Your task to perform on an android device: turn pop-ups off in chrome Image 0: 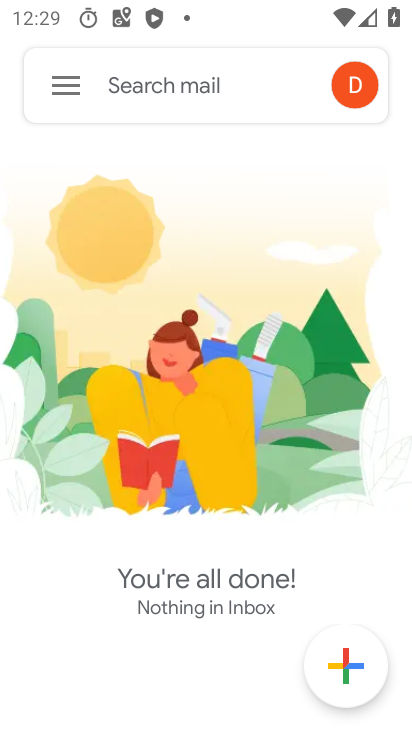
Step 0: press home button
Your task to perform on an android device: turn pop-ups off in chrome Image 1: 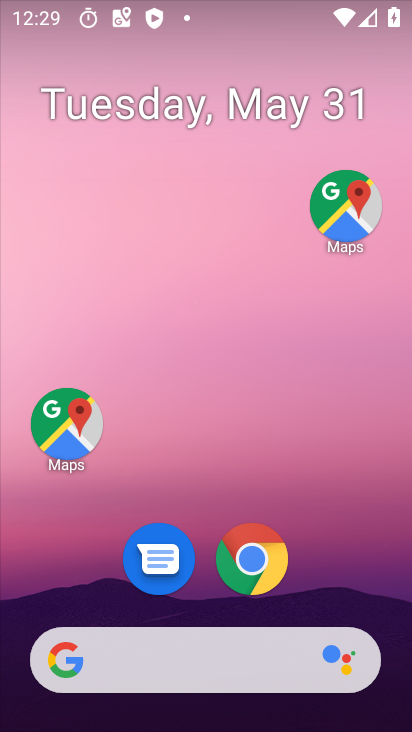
Step 1: click (264, 558)
Your task to perform on an android device: turn pop-ups off in chrome Image 2: 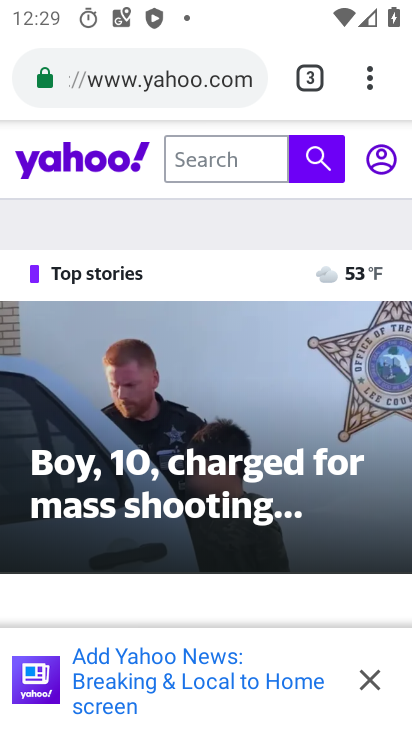
Step 2: drag from (369, 80) to (146, 614)
Your task to perform on an android device: turn pop-ups off in chrome Image 3: 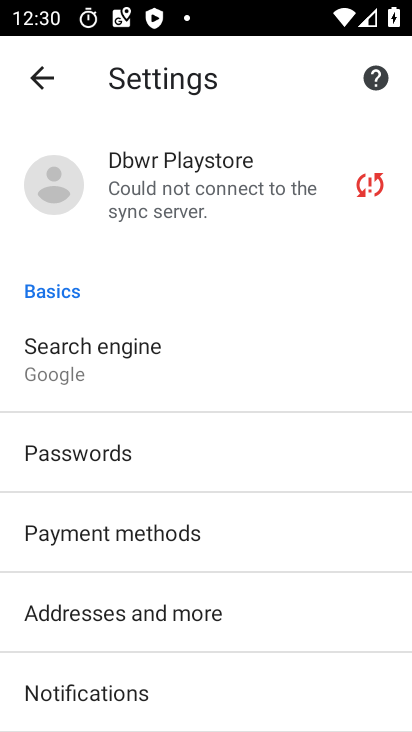
Step 3: drag from (254, 563) to (182, 54)
Your task to perform on an android device: turn pop-ups off in chrome Image 4: 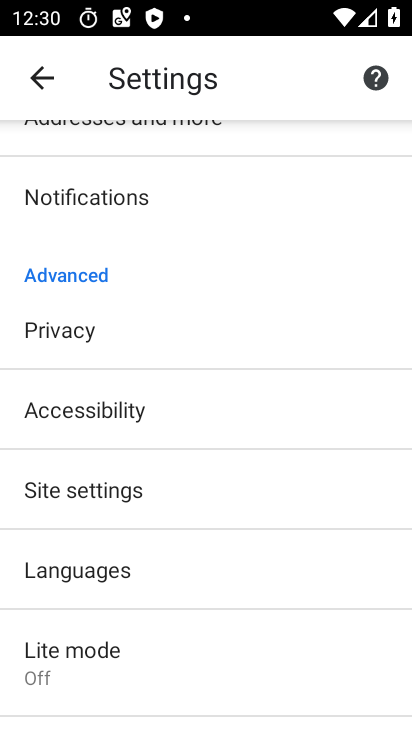
Step 4: drag from (188, 513) to (180, 193)
Your task to perform on an android device: turn pop-ups off in chrome Image 5: 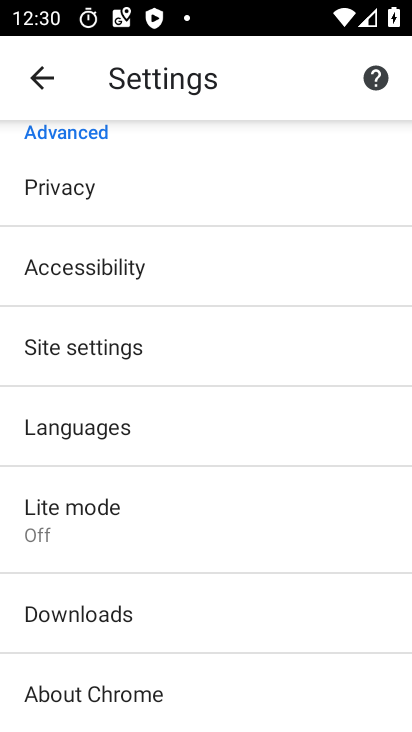
Step 5: click (129, 346)
Your task to perform on an android device: turn pop-ups off in chrome Image 6: 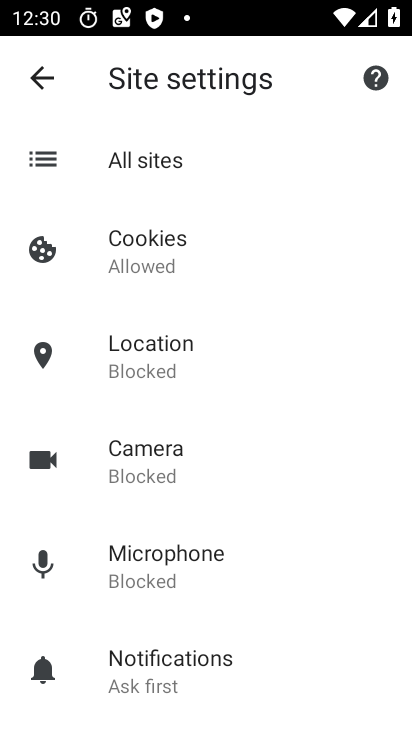
Step 6: drag from (222, 573) to (241, 143)
Your task to perform on an android device: turn pop-ups off in chrome Image 7: 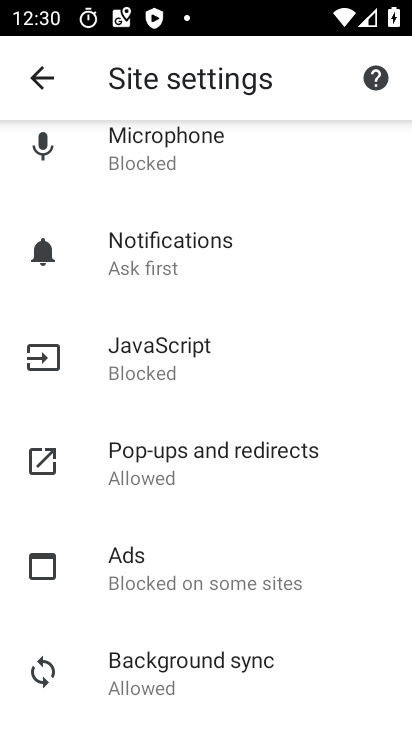
Step 7: drag from (296, 550) to (223, 666)
Your task to perform on an android device: turn pop-ups off in chrome Image 8: 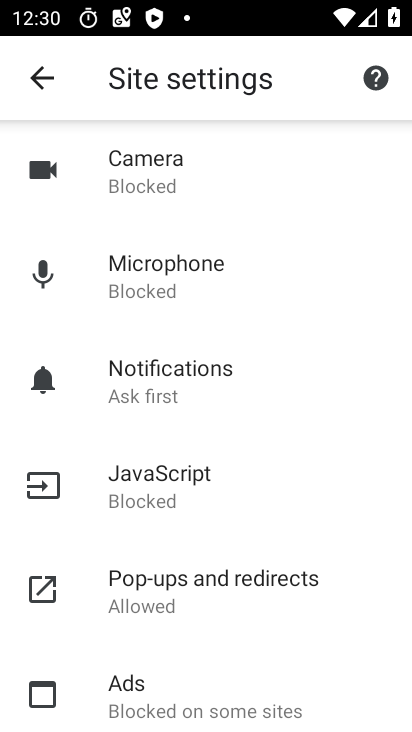
Step 8: click (179, 587)
Your task to perform on an android device: turn pop-ups off in chrome Image 9: 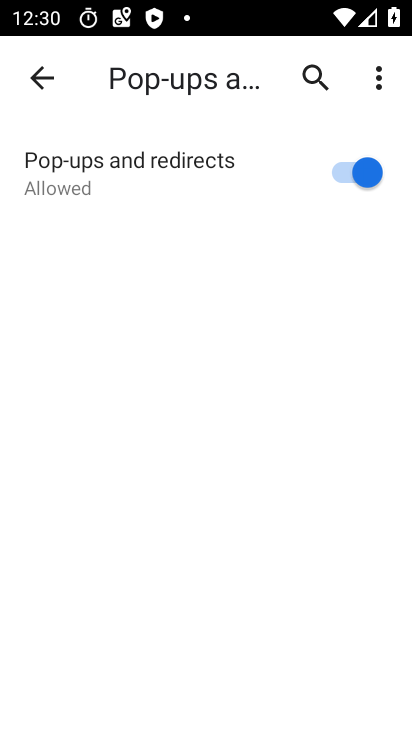
Step 9: click (361, 178)
Your task to perform on an android device: turn pop-ups off in chrome Image 10: 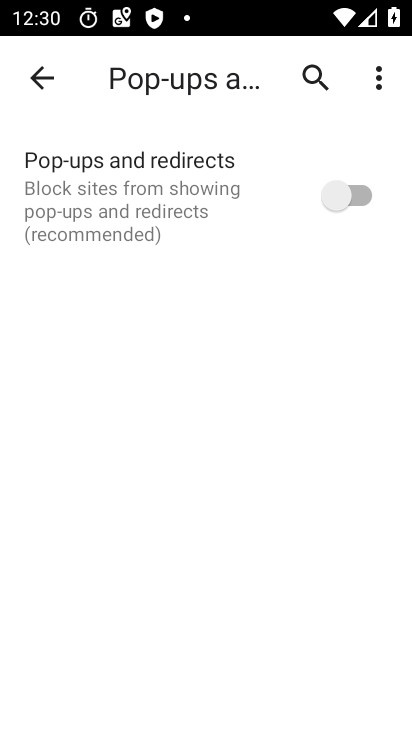
Step 10: task complete